Your task to perform on an android device: check battery use Image 0: 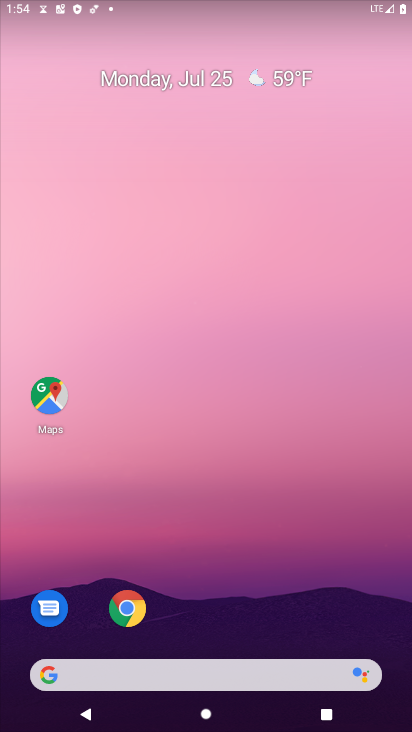
Step 0: drag from (293, 566) to (225, 2)
Your task to perform on an android device: check battery use Image 1: 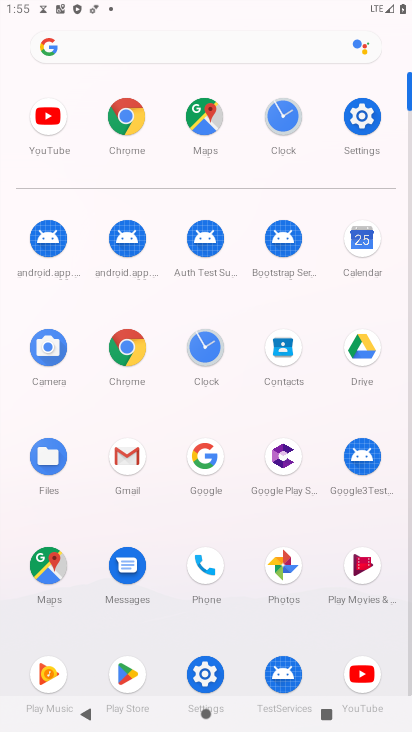
Step 1: click (346, 112)
Your task to perform on an android device: check battery use Image 2: 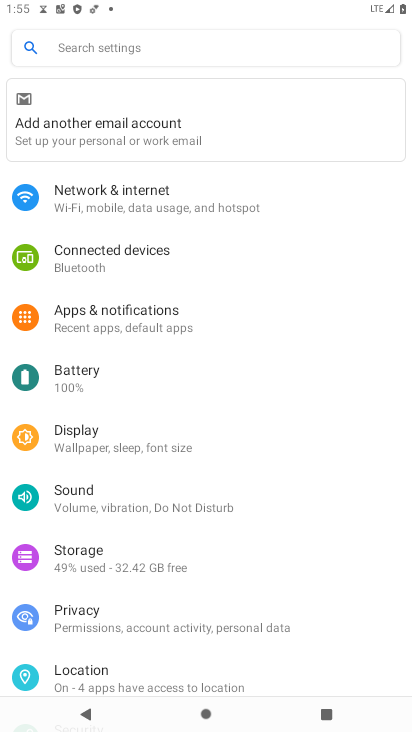
Step 2: click (111, 378)
Your task to perform on an android device: check battery use Image 3: 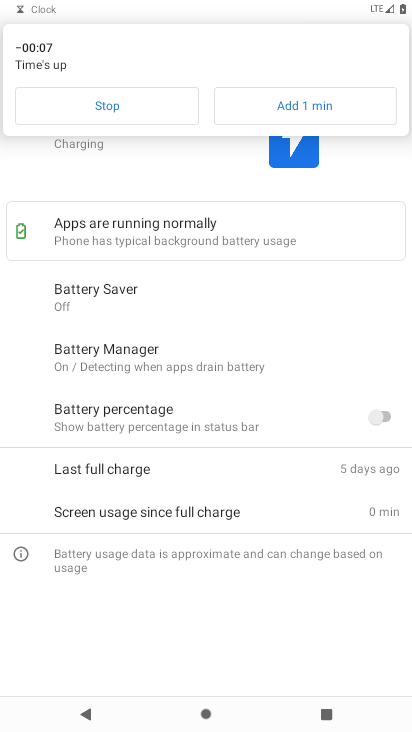
Step 3: click (114, 115)
Your task to perform on an android device: check battery use Image 4: 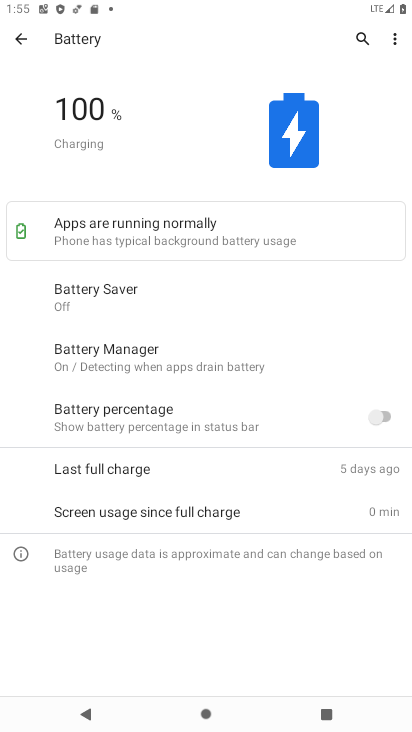
Step 4: click (406, 46)
Your task to perform on an android device: check battery use Image 5: 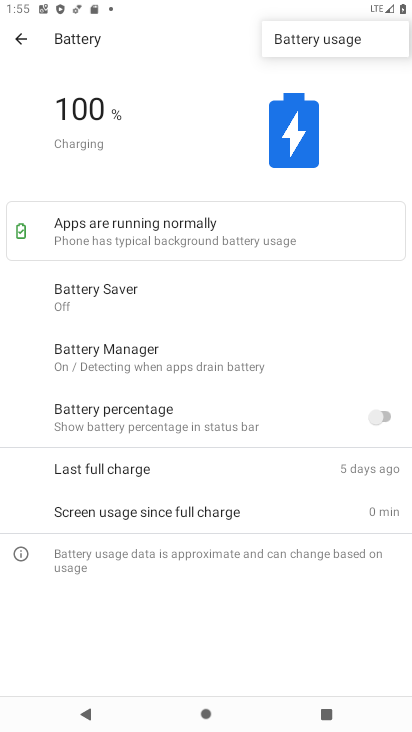
Step 5: click (305, 44)
Your task to perform on an android device: check battery use Image 6: 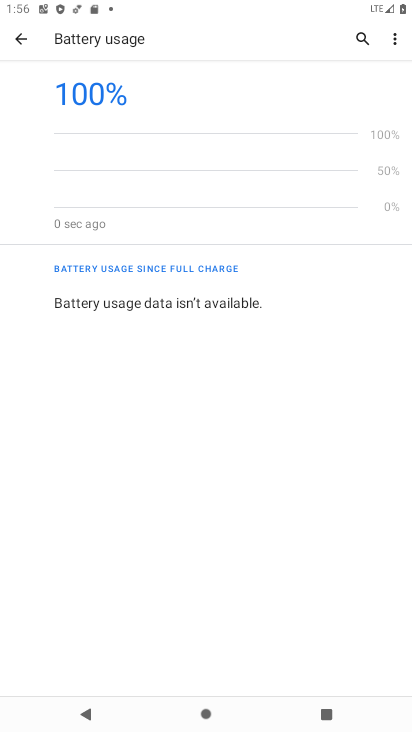
Step 6: task complete